Your task to perform on an android device: choose inbox layout in the gmail app Image 0: 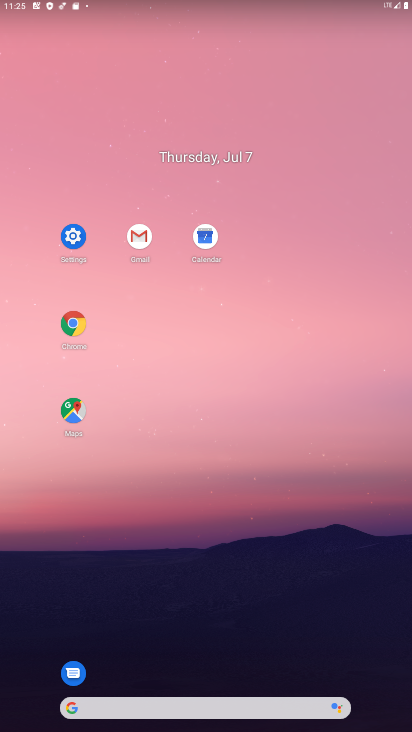
Step 0: click (130, 239)
Your task to perform on an android device: choose inbox layout in the gmail app Image 1: 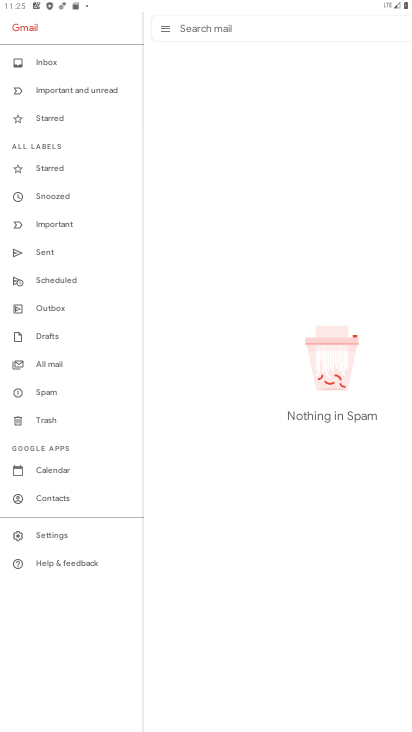
Step 1: click (61, 533)
Your task to perform on an android device: choose inbox layout in the gmail app Image 2: 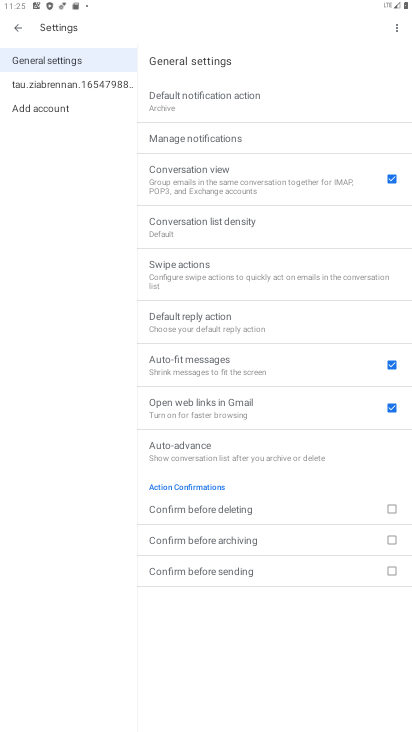
Step 2: click (75, 89)
Your task to perform on an android device: choose inbox layout in the gmail app Image 3: 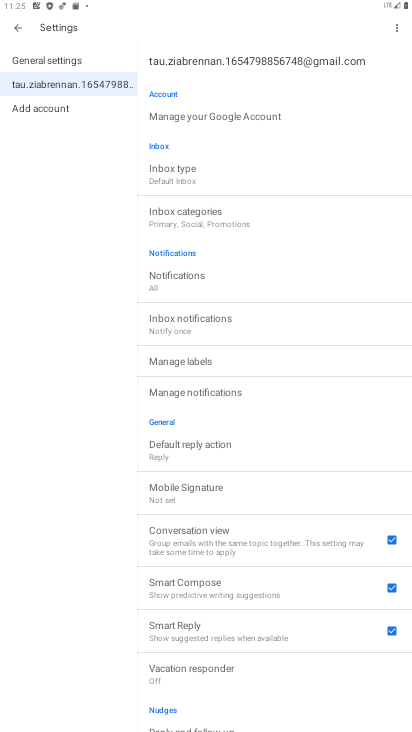
Step 3: click (235, 331)
Your task to perform on an android device: choose inbox layout in the gmail app Image 4: 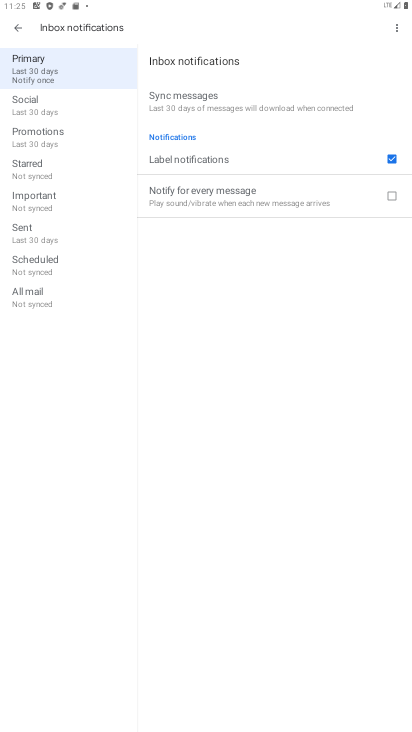
Step 4: task complete